Your task to perform on an android device: open app "Fetch Rewards" (install if not already installed) Image 0: 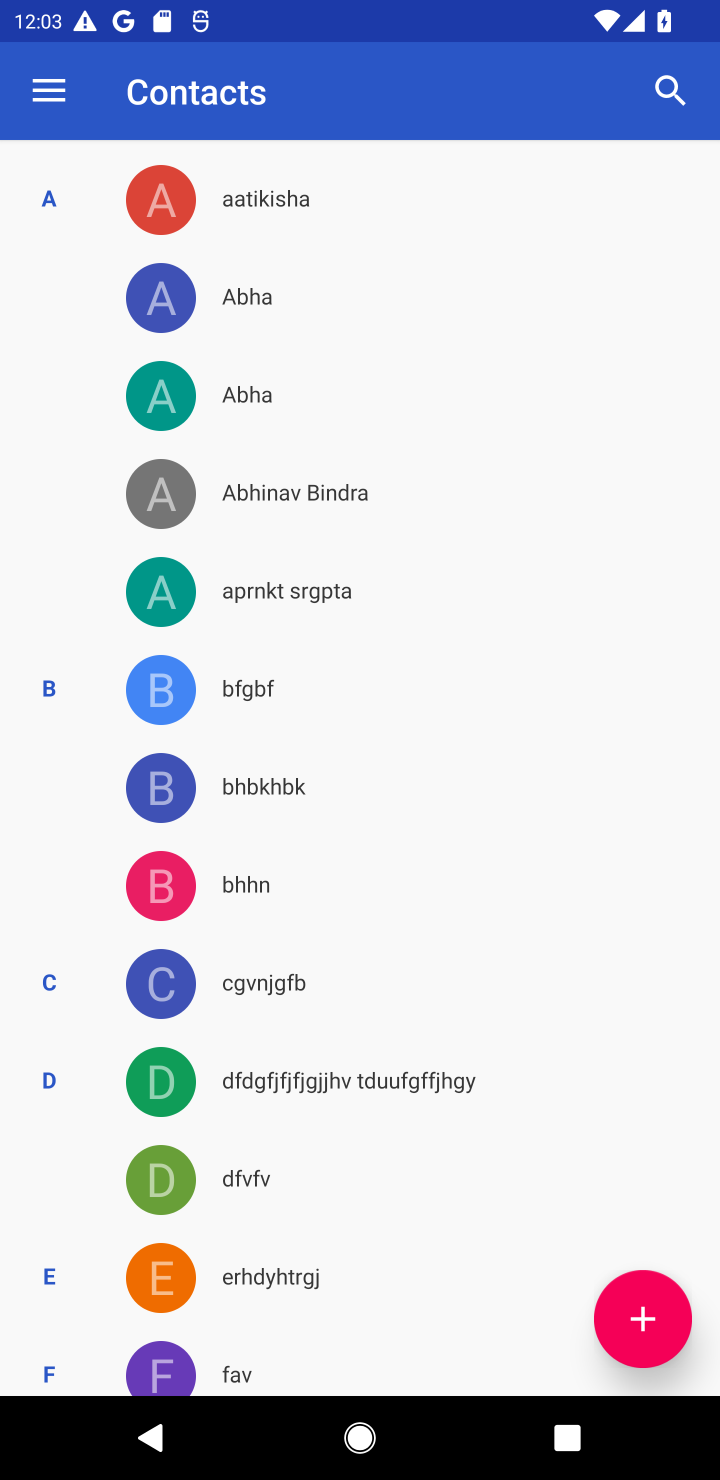
Step 0: click (156, 1437)
Your task to perform on an android device: open app "Fetch Rewards" (install if not already installed) Image 1: 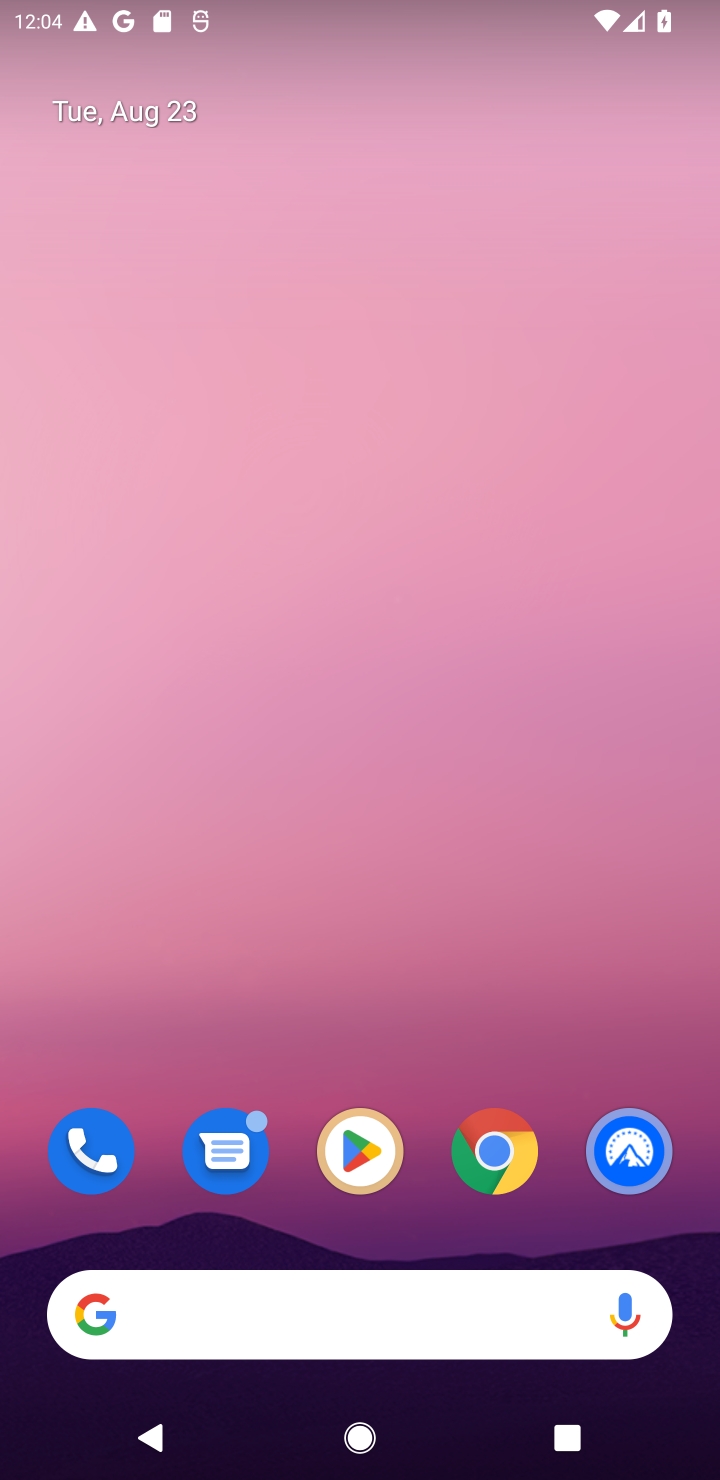
Step 1: click (346, 1166)
Your task to perform on an android device: open app "Fetch Rewards" (install if not already installed) Image 2: 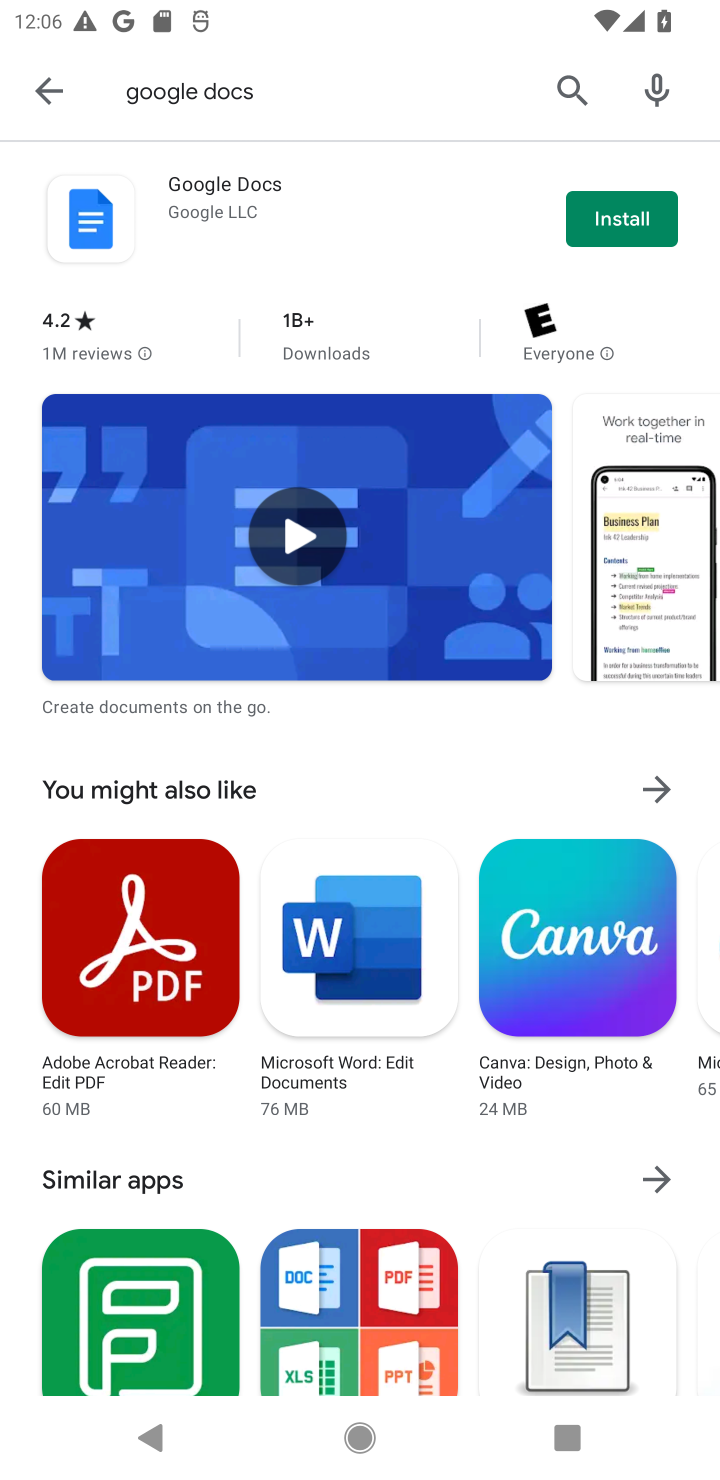
Step 2: click (561, 96)
Your task to perform on an android device: open app "Fetch Rewards" (install if not already installed) Image 3: 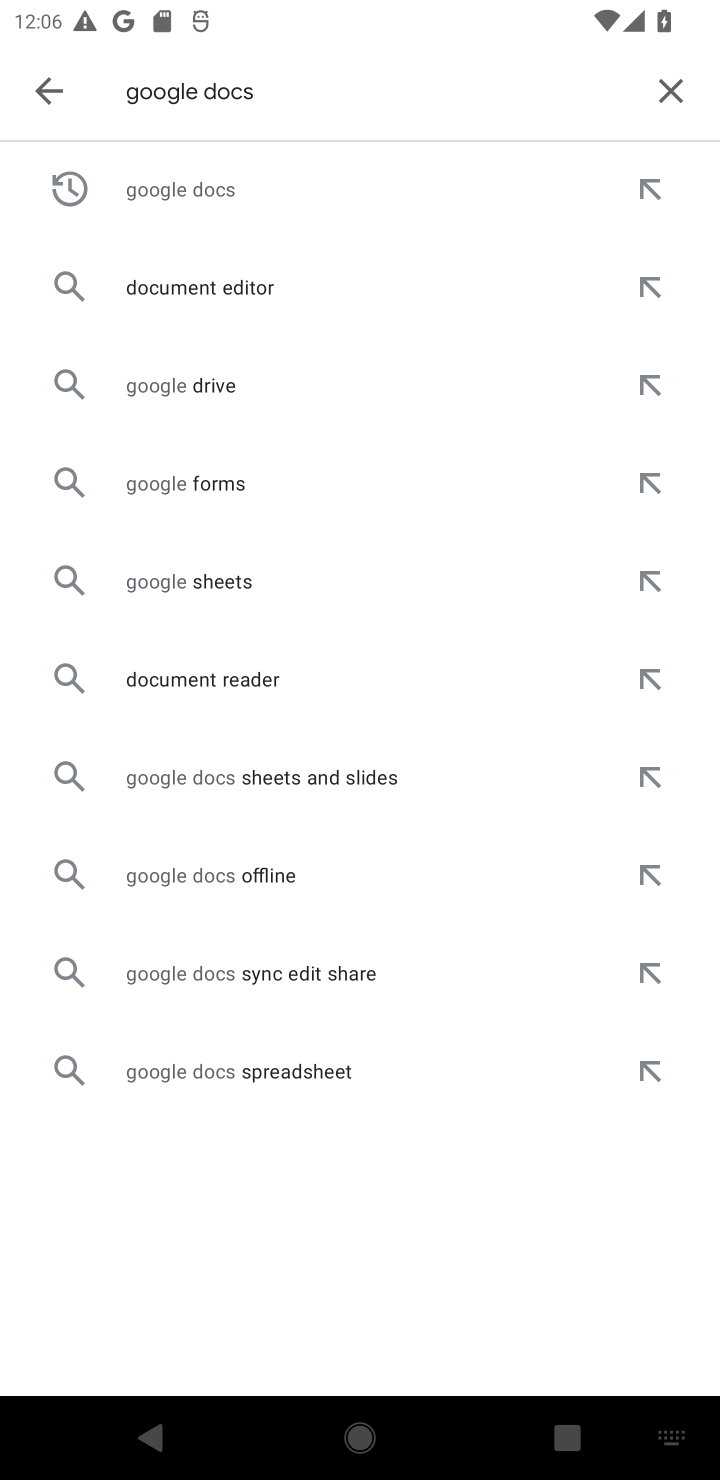
Step 3: click (668, 81)
Your task to perform on an android device: open app "Fetch Rewards" (install if not already installed) Image 4: 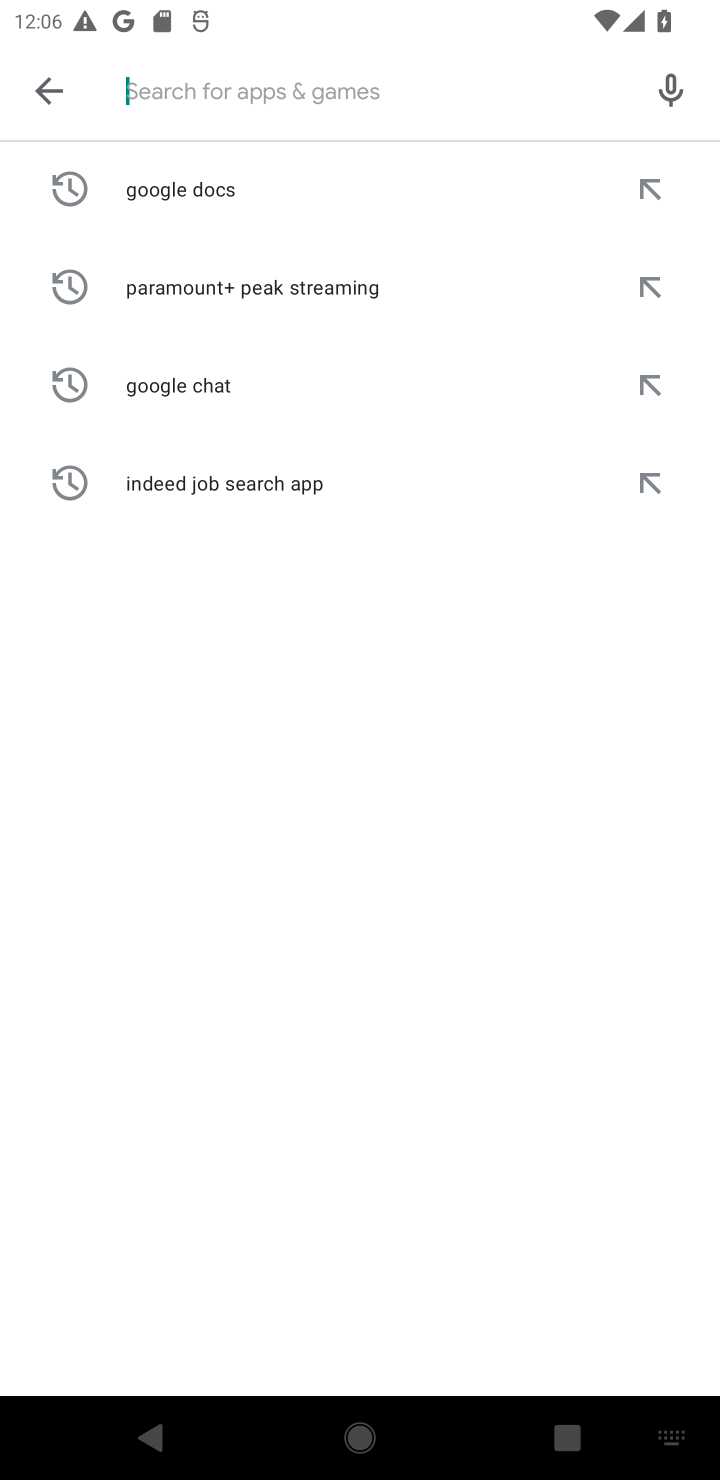
Step 4: type "Fetch Reward"
Your task to perform on an android device: open app "Fetch Rewards" (install if not already installed) Image 5: 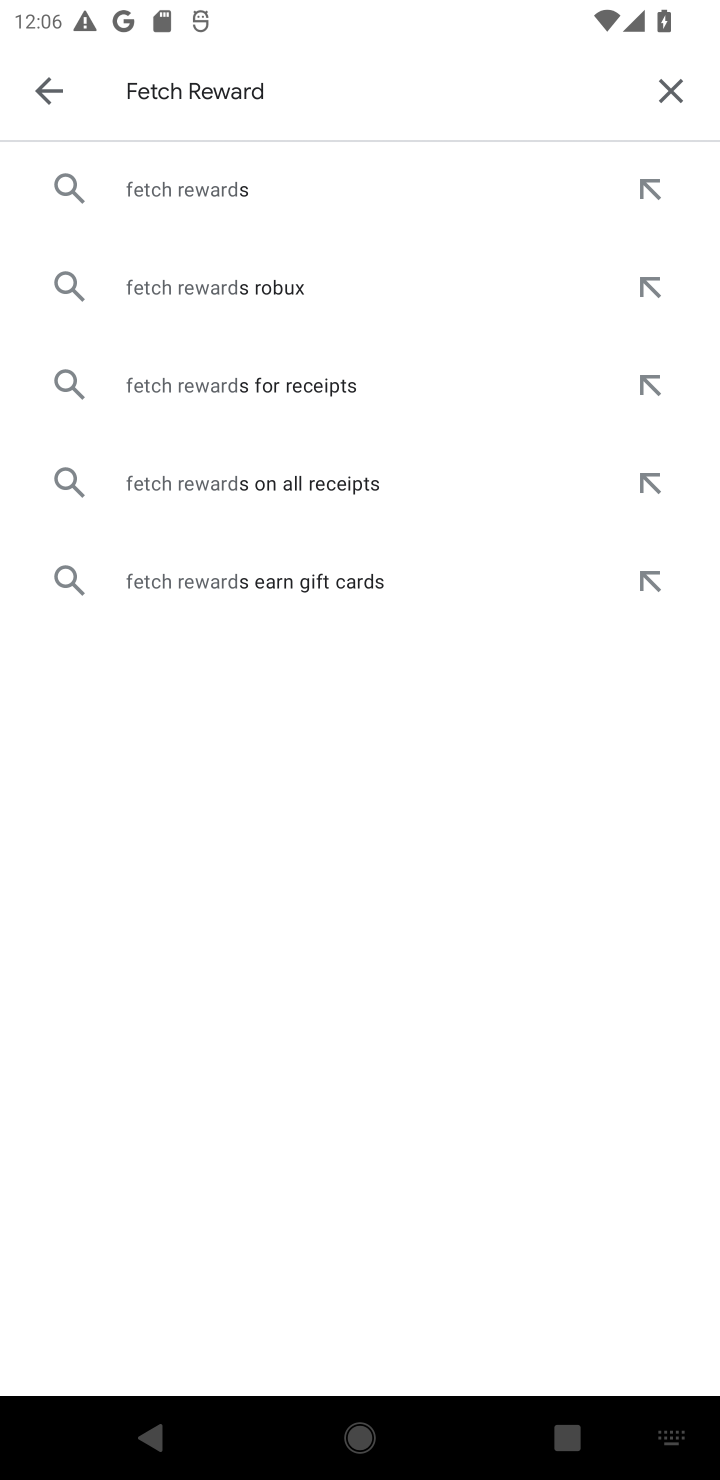
Step 5: click (317, 175)
Your task to perform on an android device: open app "Fetch Rewards" (install if not already installed) Image 6: 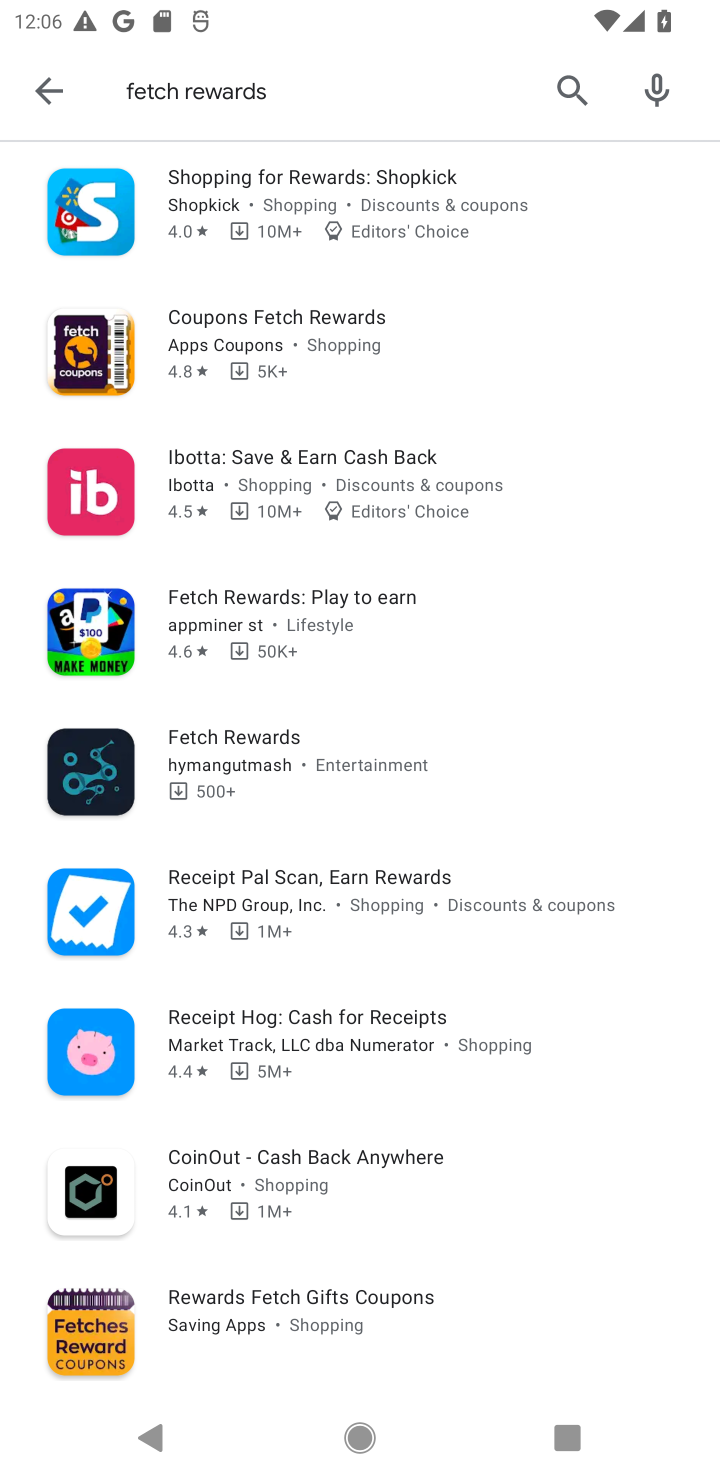
Step 6: task complete